Your task to perform on an android device: turn on notifications settings in the gmail app Image 0: 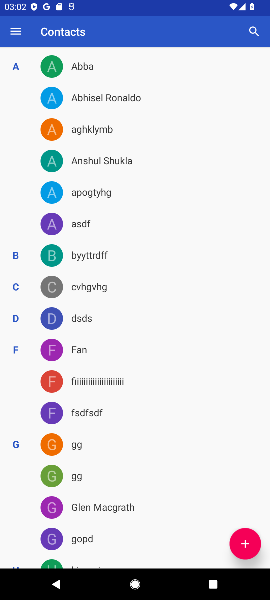
Step 0: press home button
Your task to perform on an android device: turn on notifications settings in the gmail app Image 1: 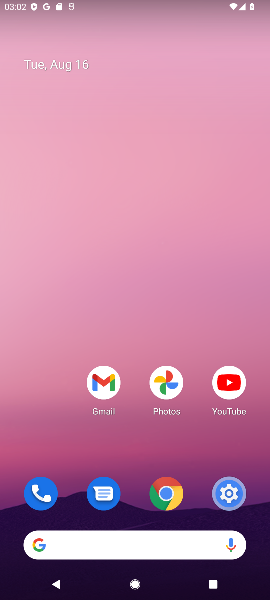
Step 1: drag from (61, 463) to (56, 24)
Your task to perform on an android device: turn on notifications settings in the gmail app Image 2: 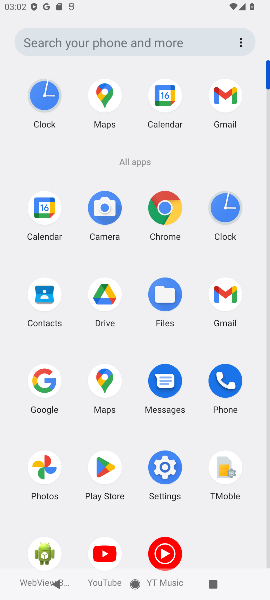
Step 2: click (226, 290)
Your task to perform on an android device: turn on notifications settings in the gmail app Image 3: 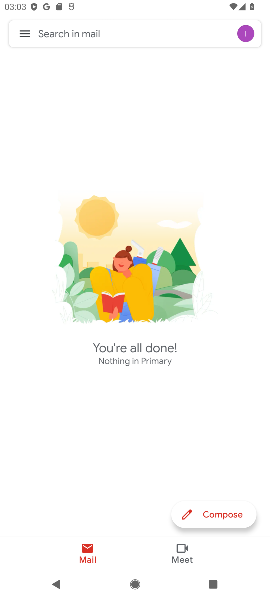
Step 3: click (26, 33)
Your task to perform on an android device: turn on notifications settings in the gmail app Image 4: 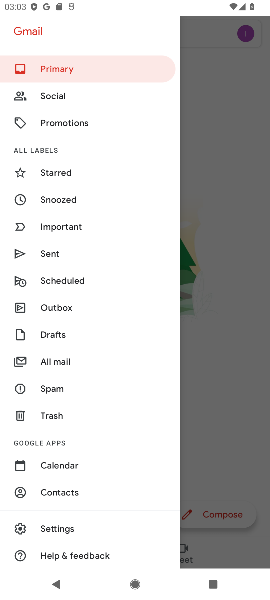
Step 4: click (84, 527)
Your task to perform on an android device: turn on notifications settings in the gmail app Image 5: 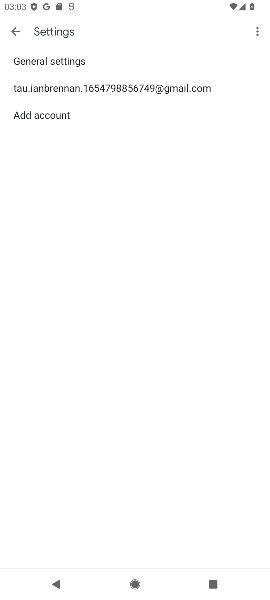
Step 5: click (187, 92)
Your task to perform on an android device: turn on notifications settings in the gmail app Image 6: 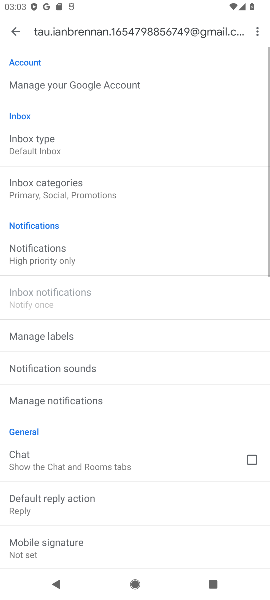
Step 6: drag from (195, 442) to (195, 335)
Your task to perform on an android device: turn on notifications settings in the gmail app Image 7: 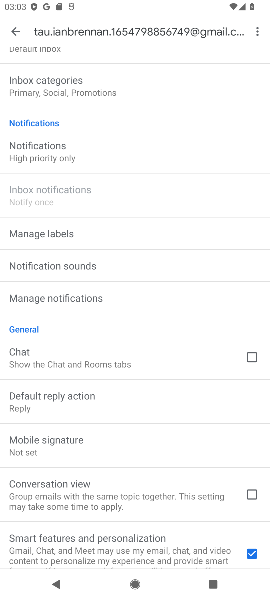
Step 7: drag from (191, 462) to (198, 334)
Your task to perform on an android device: turn on notifications settings in the gmail app Image 8: 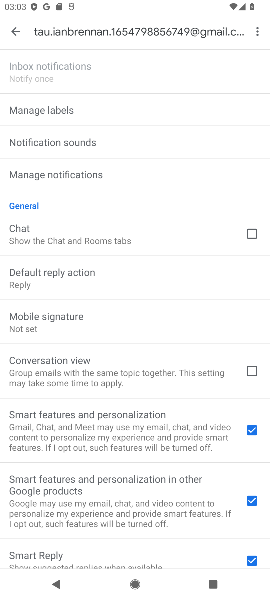
Step 8: drag from (199, 489) to (202, 349)
Your task to perform on an android device: turn on notifications settings in the gmail app Image 9: 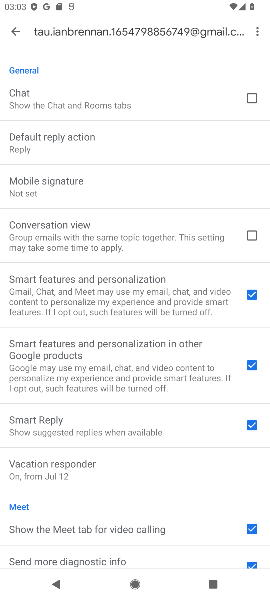
Step 9: drag from (197, 501) to (197, 373)
Your task to perform on an android device: turn on notifications settings in the gmail app Image 10: 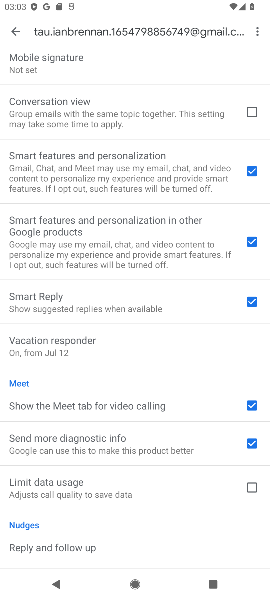
Step 10: drag from (188, 522) to (199, 386)
Your task to perform on an android device: turn on notifications settings in the gmail app Image 11: 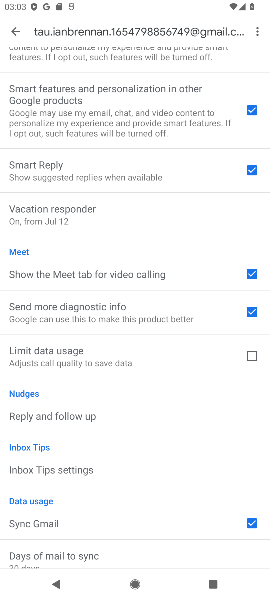
Step 11: drag from (204, 192) to (226, 319)
Your task to perform on an android device: turn on notifications settings in the gmail app Image 12: 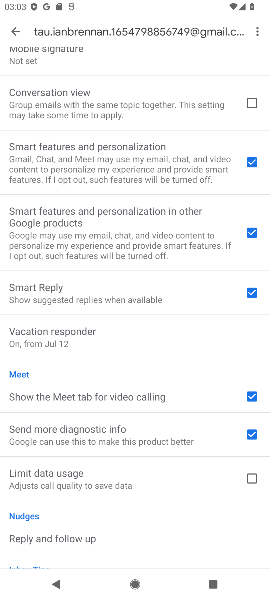
Step 12: drag from (193, 164) to (194, 250)
Your task to perform on an android device: turn on notifications settings in the gmail app Image 13: 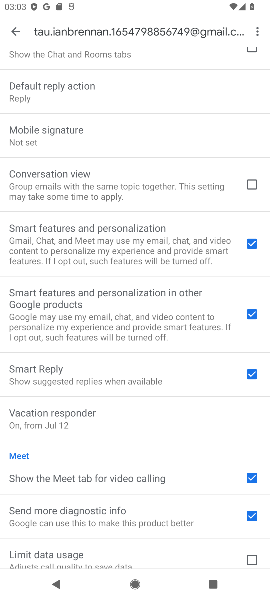
Step 13: drag from (203, 156) to (216, 289)
Your task to perform on an android device: turn on notifications settings in the gmail app Image 14: 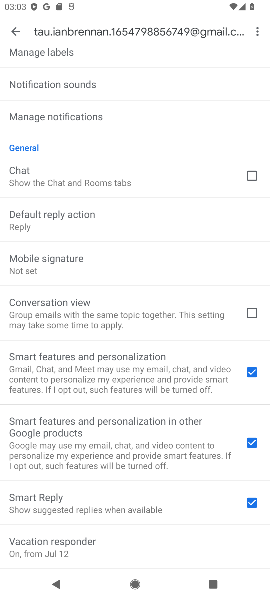
Step 14: drag from (192, 140) to (207, 286)
Your task to perform on an android device: turn on notifications settings in the gmail app Image 15: 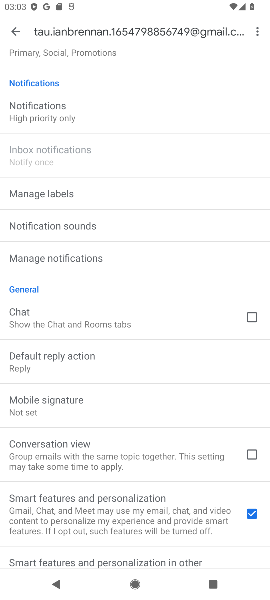
Step 15: click (112, 253)
Your task to perform on an android device: turn on notifications settings in the gmail app Image 16: 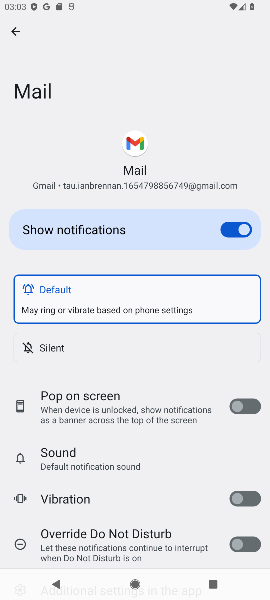
Step 16: task complete